Your task to perform on an android device: set the timer Image 0: 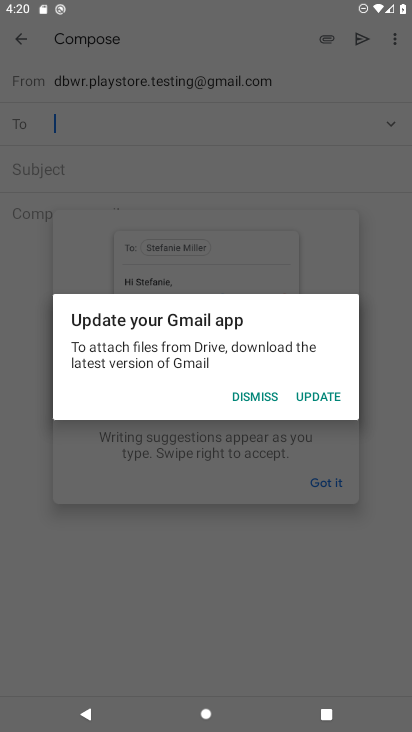
Step 0: press home button
Your task to perform on an android device: set the timer Image 1: 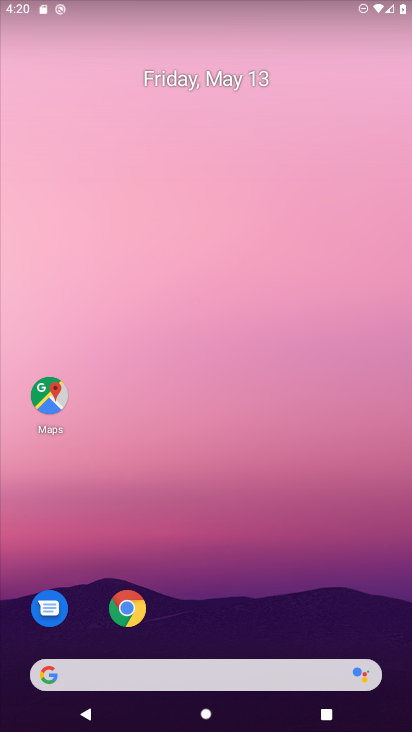
Step 1: drag from (217, 639) to (243, 4)
Your task to perform on an android device: set the timer Image 2: 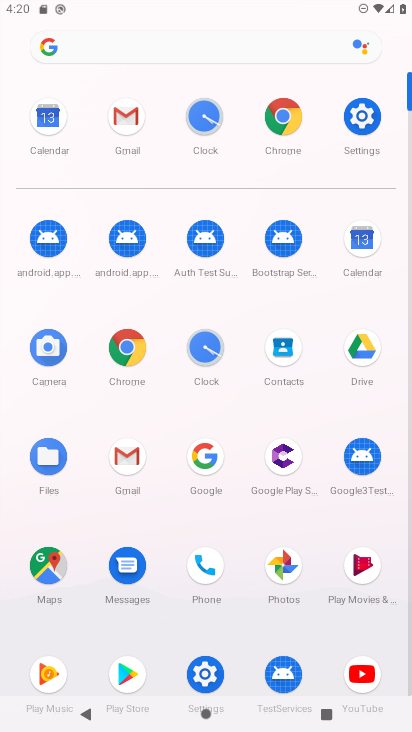
Step 2: click (209, 355)
Your task to perform on an android device: set the timer Image 3: 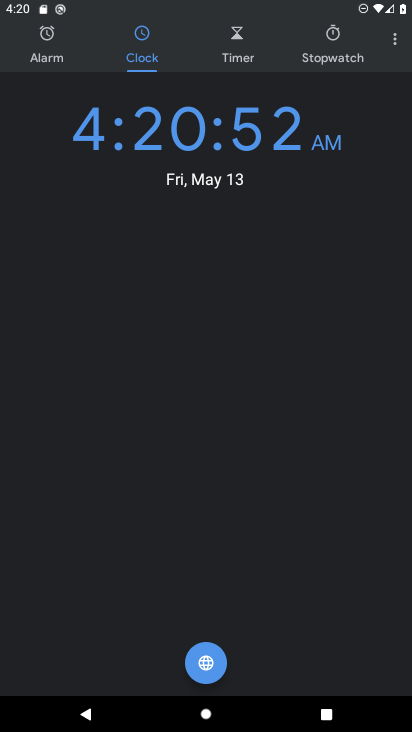
Step 3: click (253, 53)
Your task to perform on an android device: set the timer Image 4: 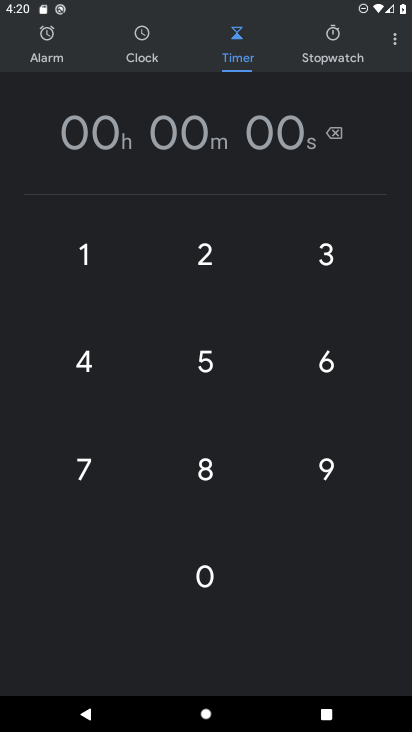
Step 4: click (198, 473)
Your task to perform on an android device: set the timer Image 5: 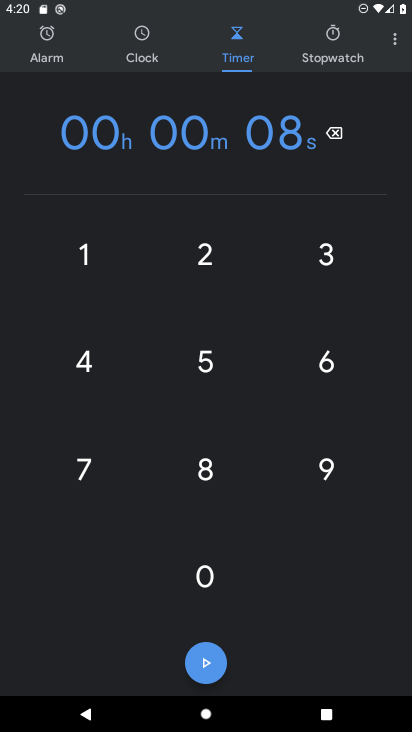
Step 5: click (216, 357)
Your task to perform on an android device: set the timer Image 6: 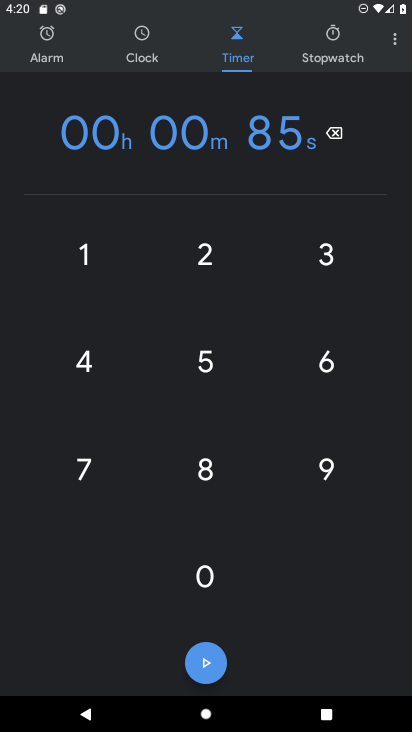
Step 6: click (308, 363)
Your task to perform on an android device: set the timer Image 7: 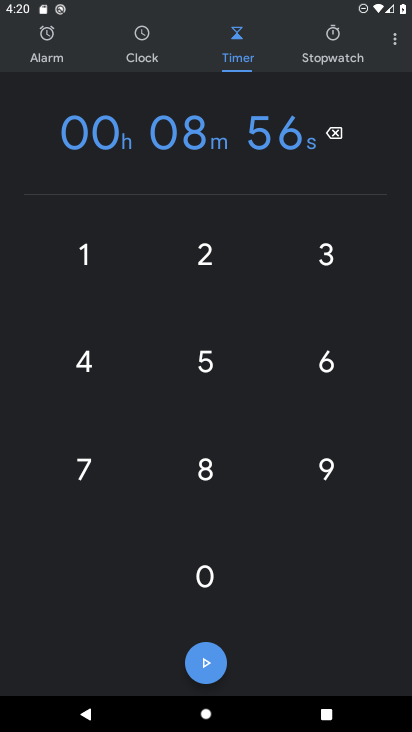
Step 7: click (316, 270)
Your task to perform on an android device: set the timer Image 8: 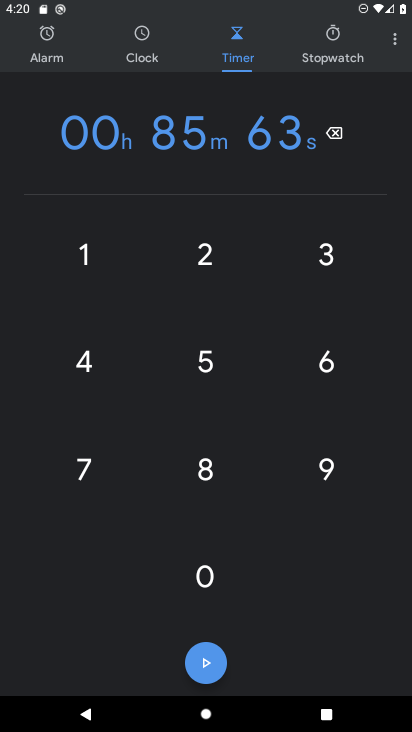
Step 8: click (100, 370)
Your task to perform on an android device: set the timer Image 9: 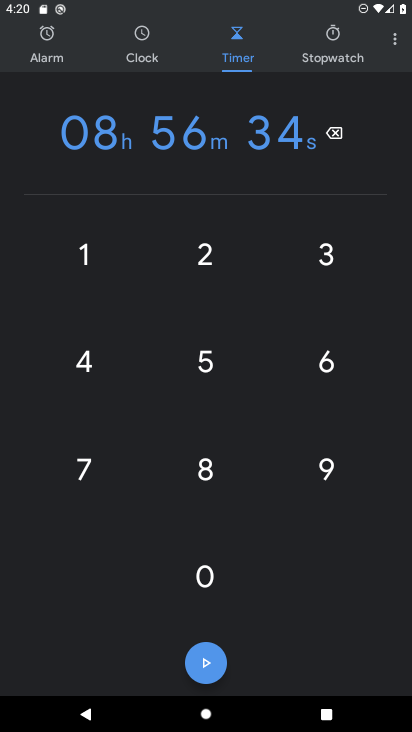
Step 9: click (192, 363)
Your task to perform on an android device: set the timer Image 10: 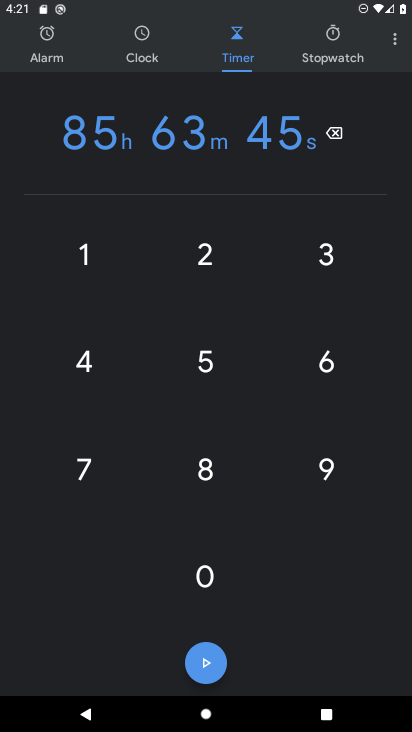
Step 10: click (196, 667)
Your task to perform on an android device: set the timer Image 11: 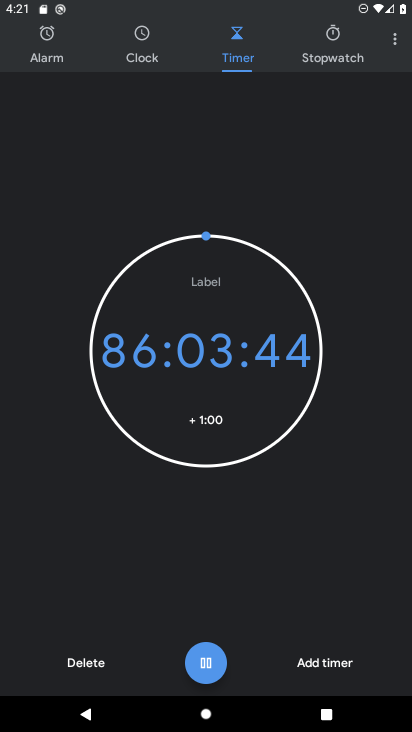
Step 11: task complete